Your task to perform on an android device: turn off javascript in the chrome app Image 0: 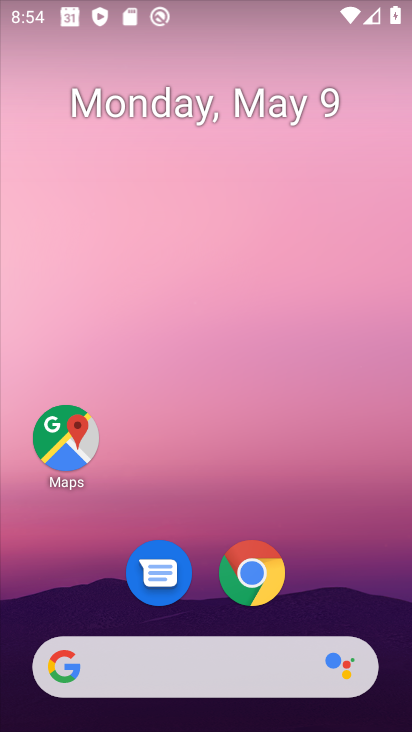
Step 0: click (250, 572)
Your task to perform on an android device: turn off javascript in the chrome app Image 1: 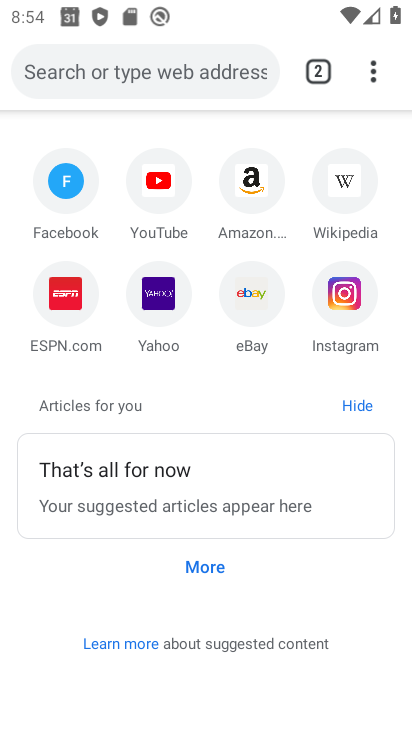
Step 1: click (369, 77)
Your task to perform on an android device: turn off javascript in the chrome app Image 2: 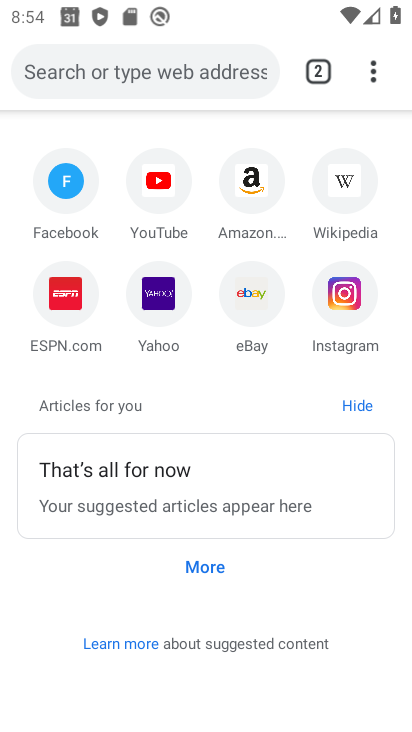
Step 2: click (369, 77)
Your task to perform on an android device: turn off javascript in the chrome app Image 3: 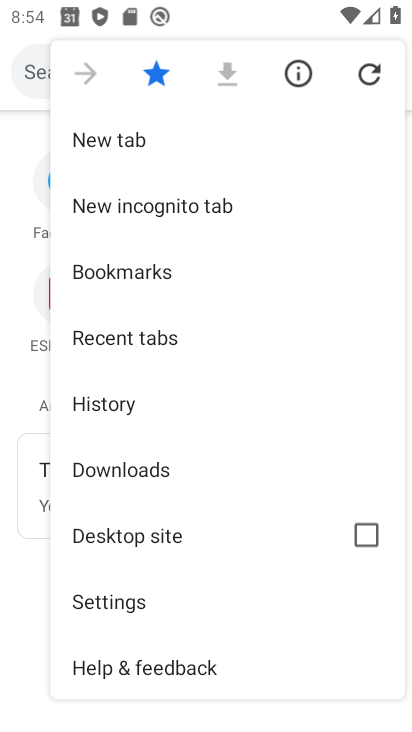
Step 3: click (170, 610)
Your task to perform on an android device: turn off javascript in the chrome app Image 4: 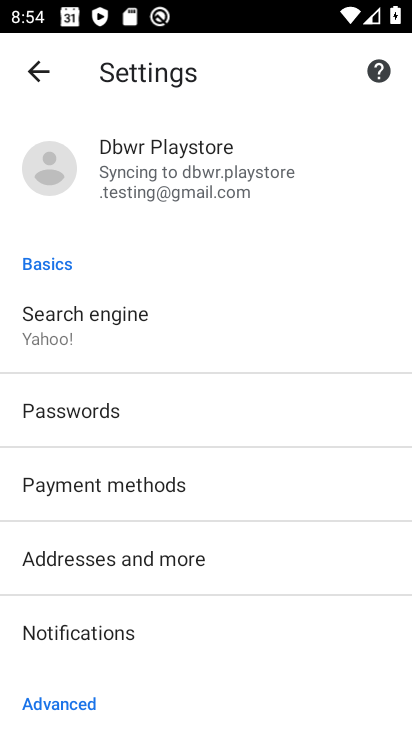
Step 4: drag from (146, 656) to (144, 524)
Your task to perform on an android device: turn off javascript in the chrome app Image 5: 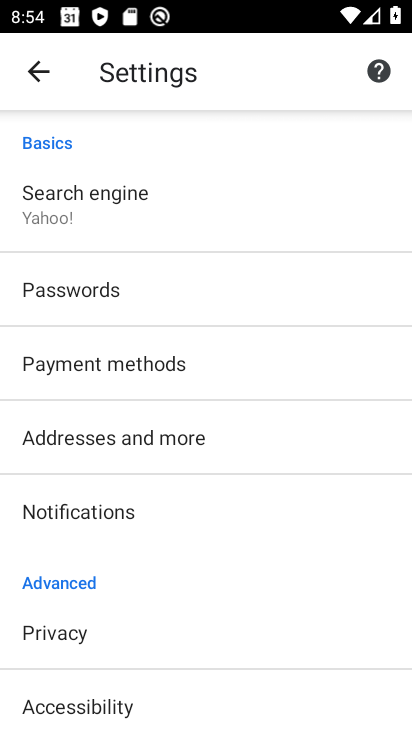
Step 5: drag from (134, 632) to (123, 475)
Your task to perform on an android device: turn off javascript in the chrome app Image 6: 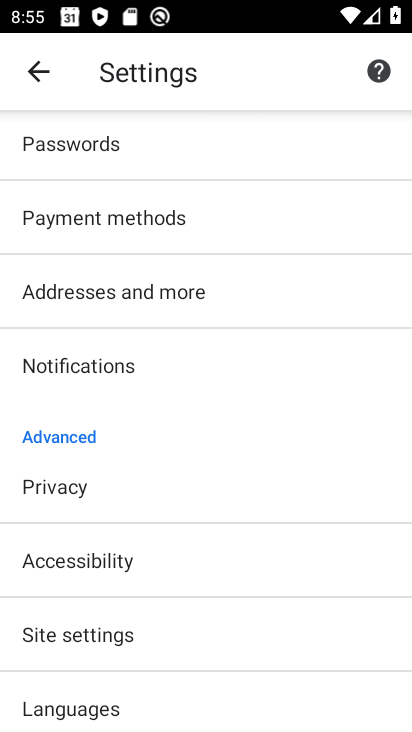
Step 6: click (110, 633)
Your task to perform on an android device: turn off javascript in the chrome app Image 7: 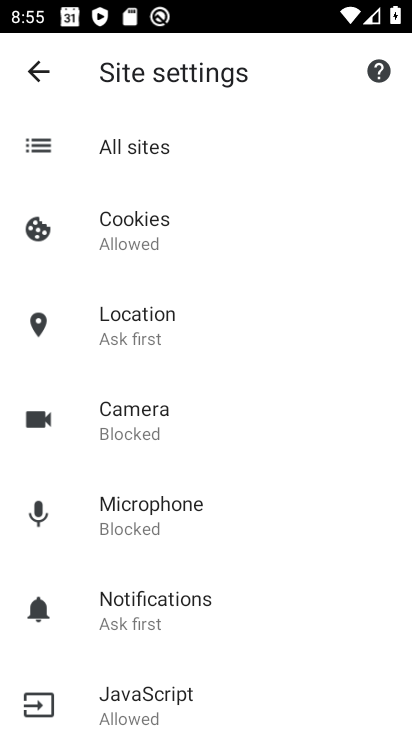
Step 7: click (182, 689)
Your task to perform on an android device: turn off javascript in the chrome app Image 8: 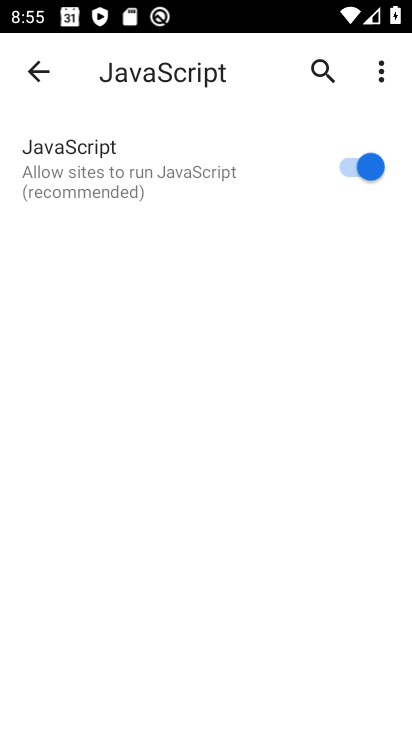
Step 8: click (369, 153)
Your task to perform on an android device: turn off javascript in the chrome app Image 9: 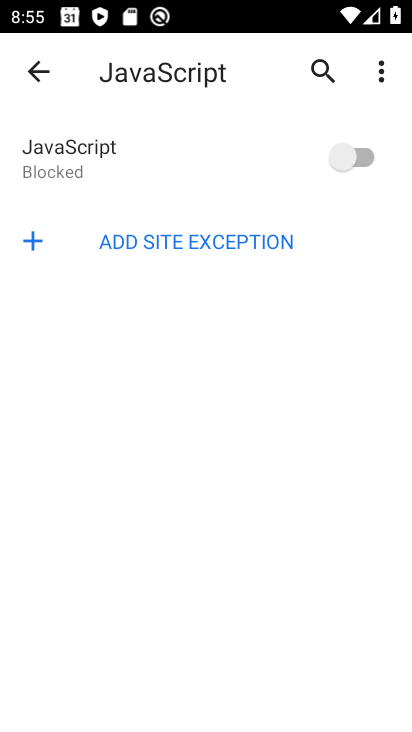
Step 9: task complete